Your task to perform on an android device: Clear the cart on bestbuy.com. Search for "razer kraken" on bestbuy.com, select the first entry, and add it to the cart. Image 0: 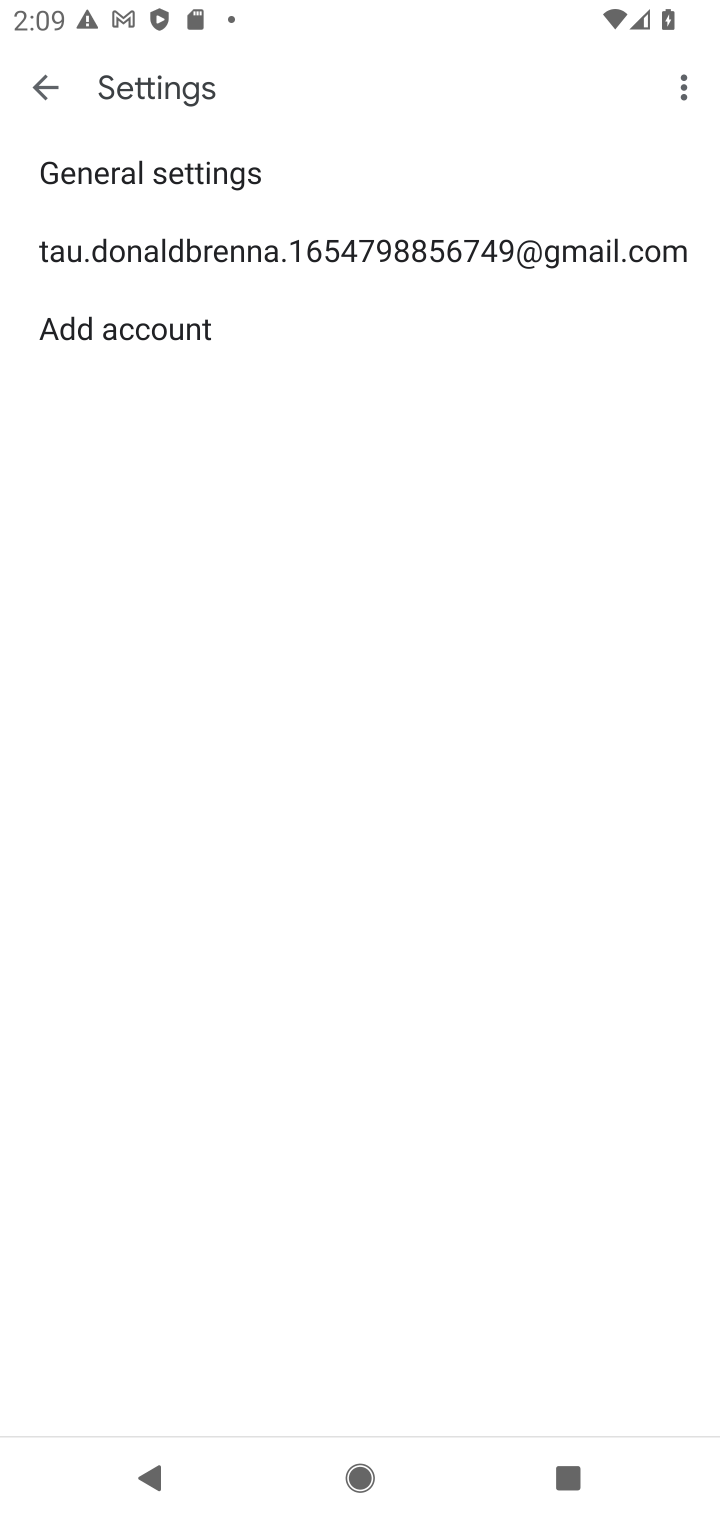
Step 0: press home button
Your task to perform on an android device: Clear the cart on bestbuy.com. Search for "razer kraken" on bestbuy.com, select the first entry, and add it to the cart. Image 1: 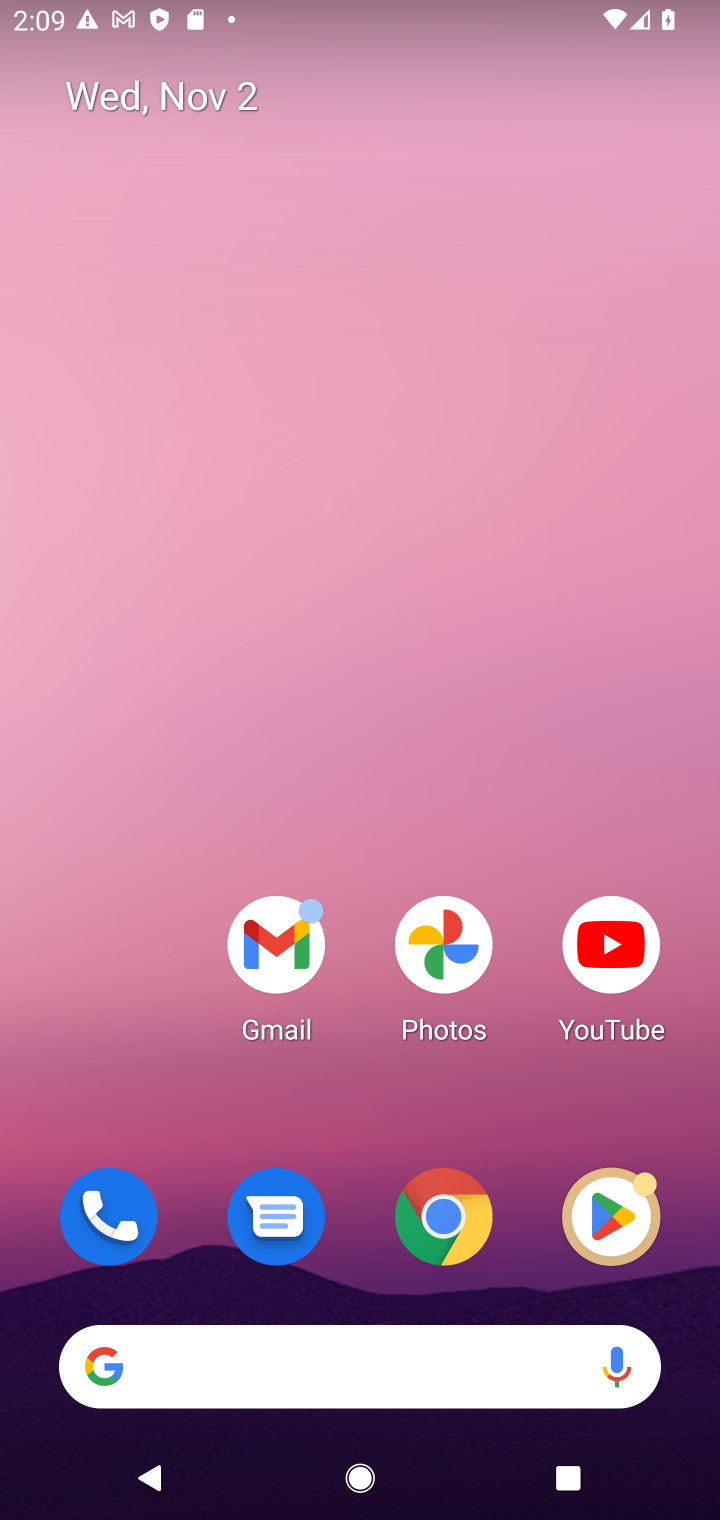
Step 1: click (458, 1229)
Your task to perform on an android device: Clear the cart on bestbuy.com. Search for "razer kraken" on bestbuy.com, select the first entry, and add it to the cart. Image 2: 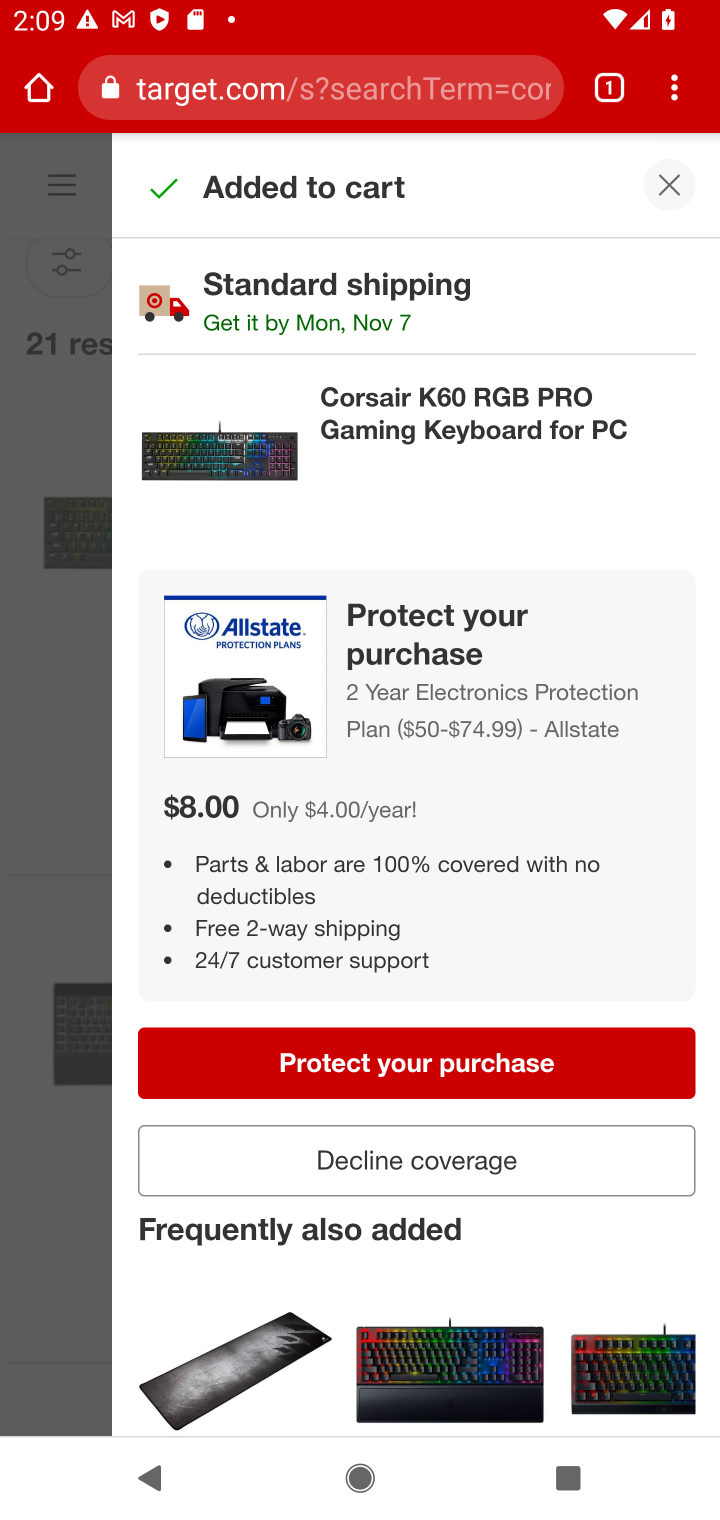
Step 2: click (632, 95)
Your task to perform on an android device: Clear the cart on bestbuy.com. Search for "razer kraken" on bestbuy.com, select the first entry, and add it to the cart. Image 3: 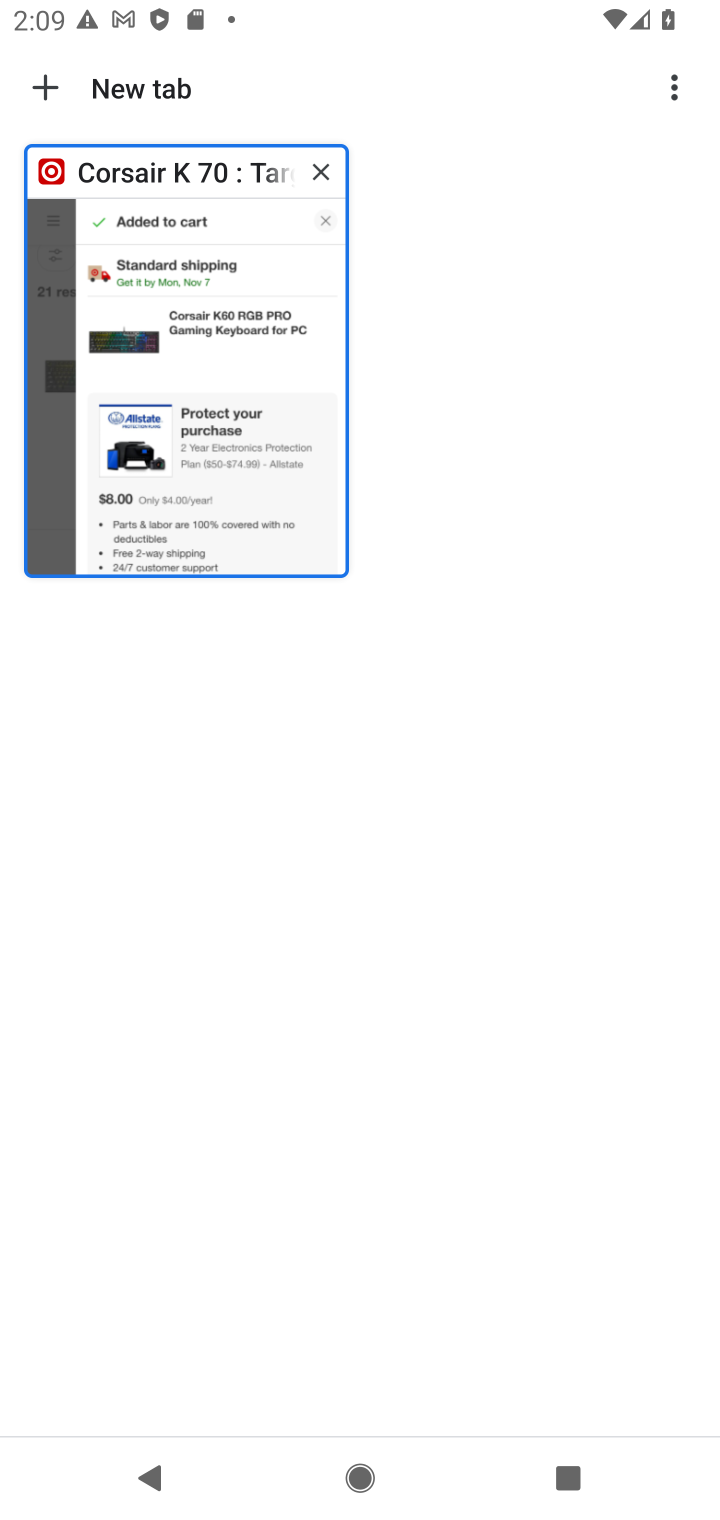
Step 3: click (34, 85)
Your task to perform on an android device: Clear the cart on bestbuy.com. Search for "razer kraken" on bestbuy.com, select the first entry, and add it to the cart. Image 4: 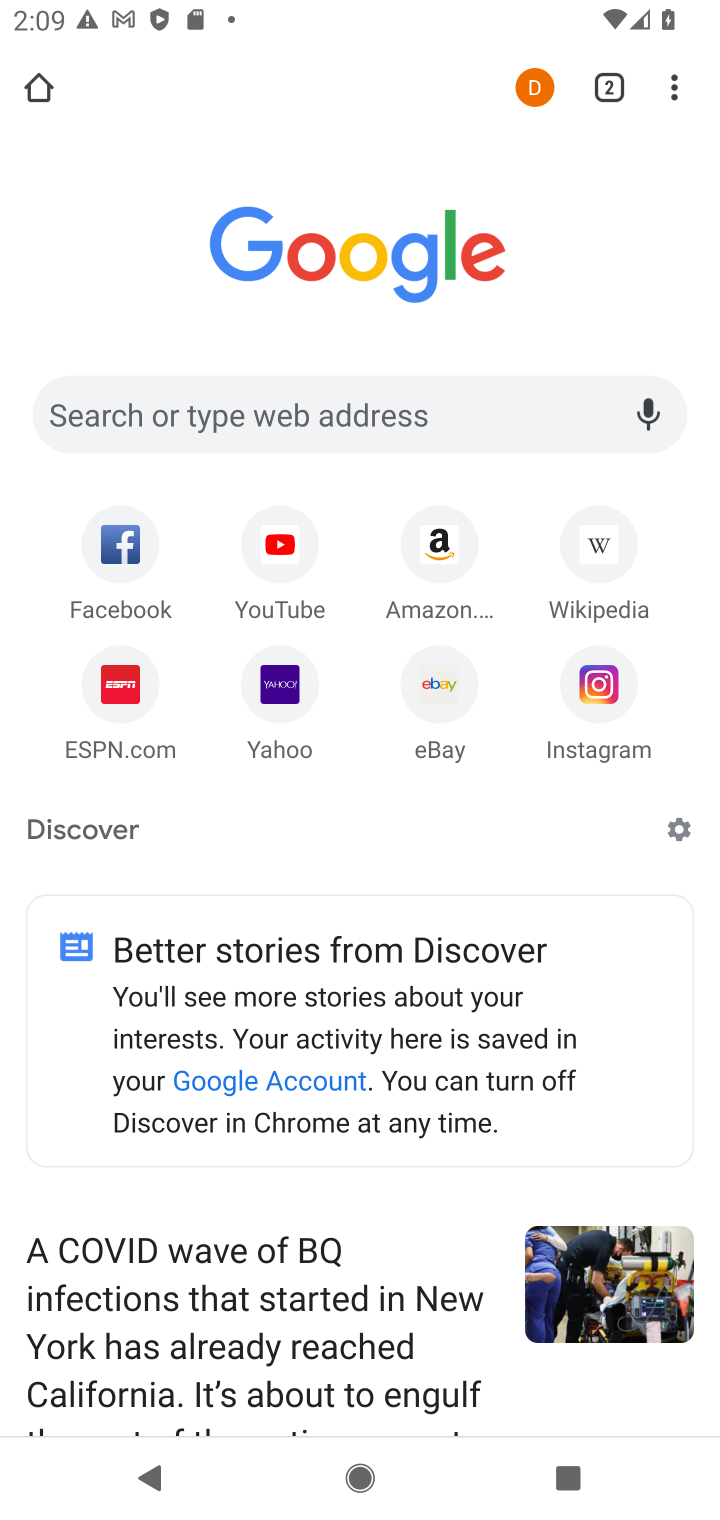
Step 4: click (297, 406)
Your task to perform on an android device: Clear the cart on bestbuy.com. Search for "razer kraken" on bestbuy.com, select the first entry, and add it to the cart. Image 5: 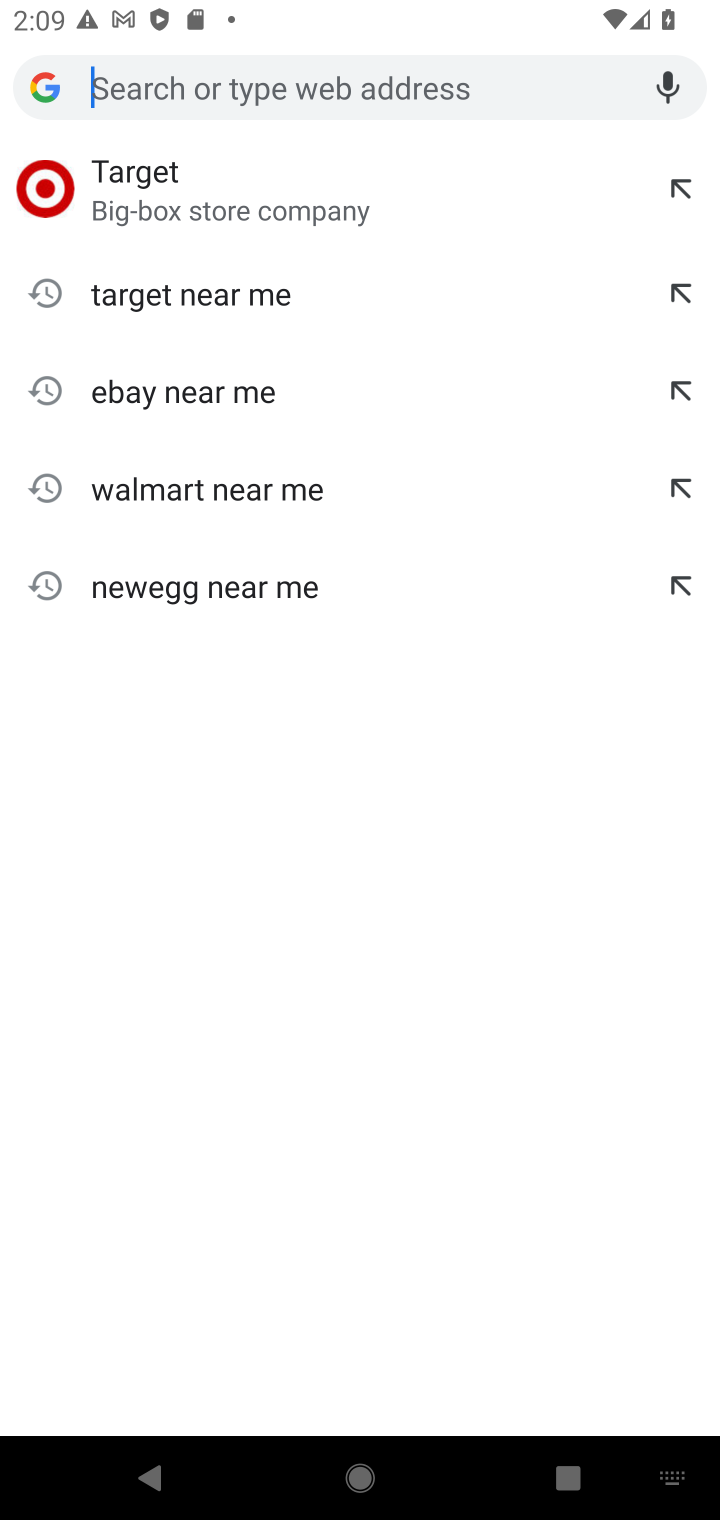
Step 5: type "bestbuy"
Your task to perform on an android device: Clear the cart on bestbuy.com. Search for "razer kraken" on bestbuy.com, select the first entry, and add it to the cart. Image 6: 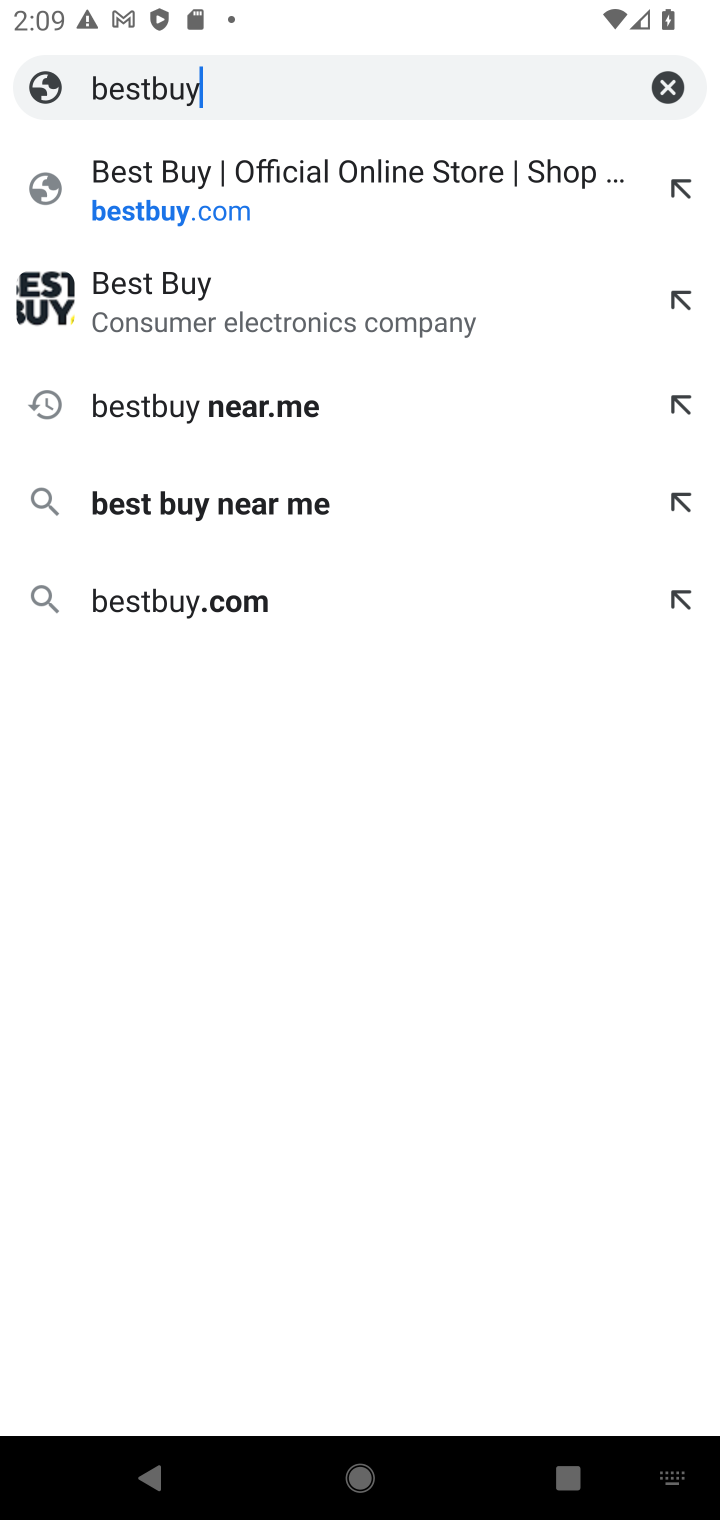
Step 6: click (318, 169)
Your task to perform on an android device: Clear the cart on bestbuy.com. Search for "razer kraken" on bestbuy.com, select the first entry, and add it to the cart. Image 7: 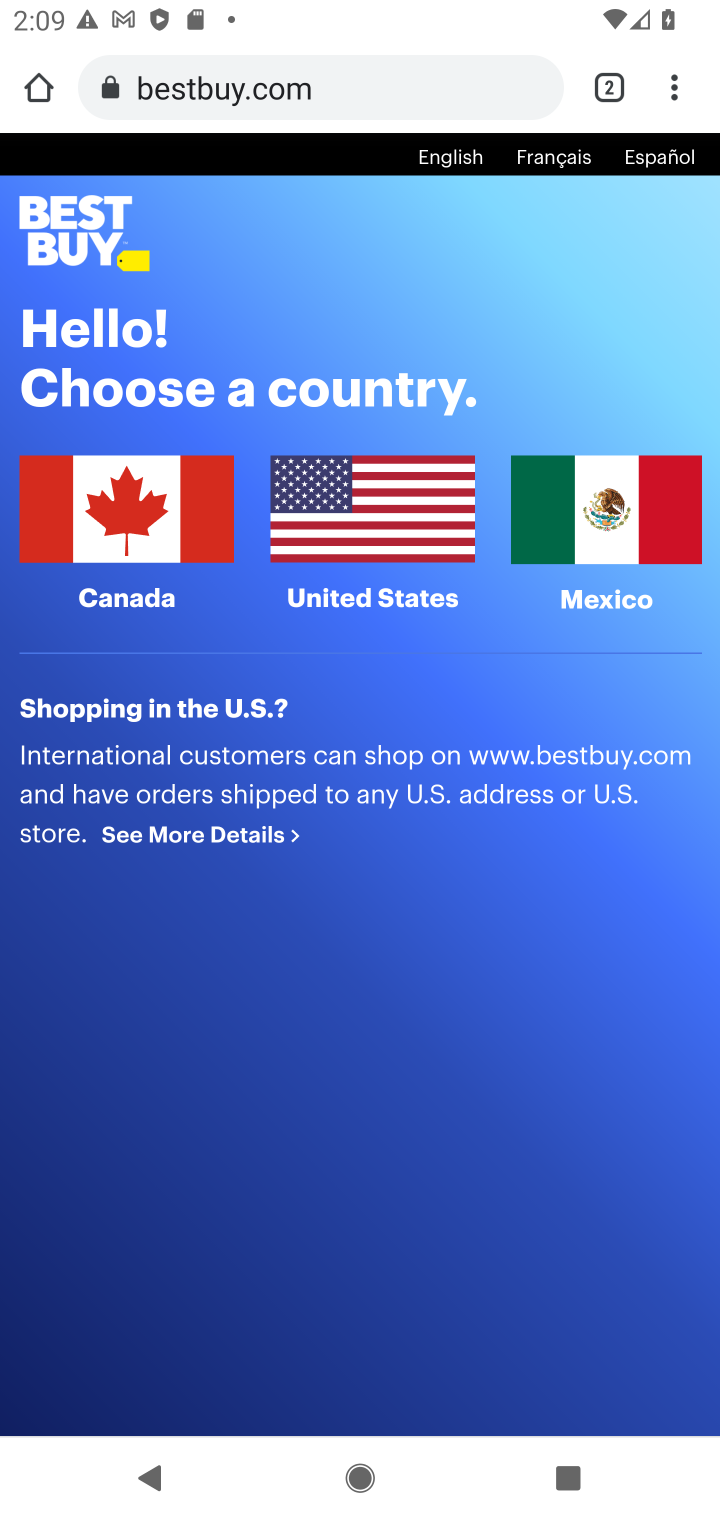
Step 7: click (313, 503)
Your task to perform on an android device: Clear the cart on bestbuy.com. Search for "razer kraken" on bestbuy.com, select the first entry, and add it to the cart. Image 8: 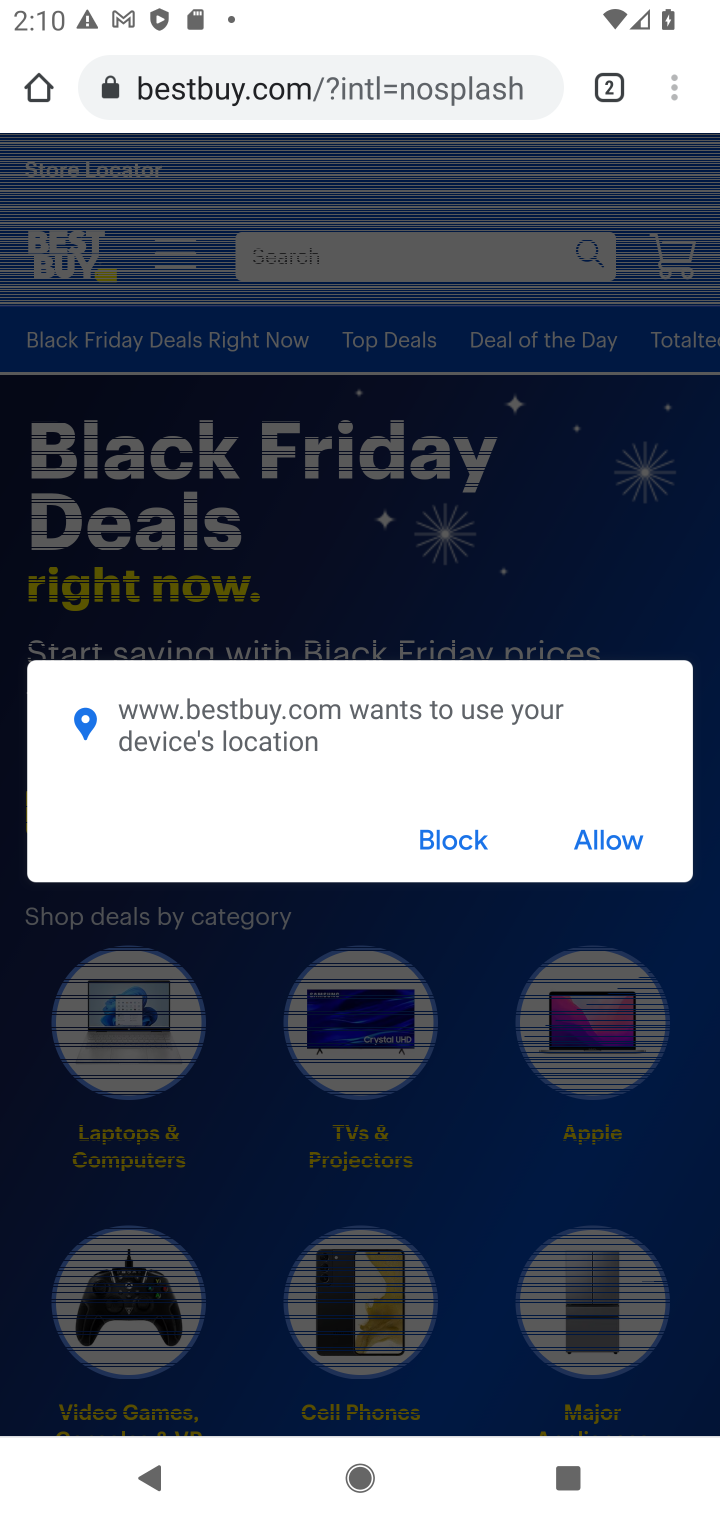
Step 8: click (602, 846)
Your task to perform on an android device: Clear the cart on bestbuy.com. Search for "razer kraken" on bestbuy.com, select the first entry, and add it to the cart. Image 9: 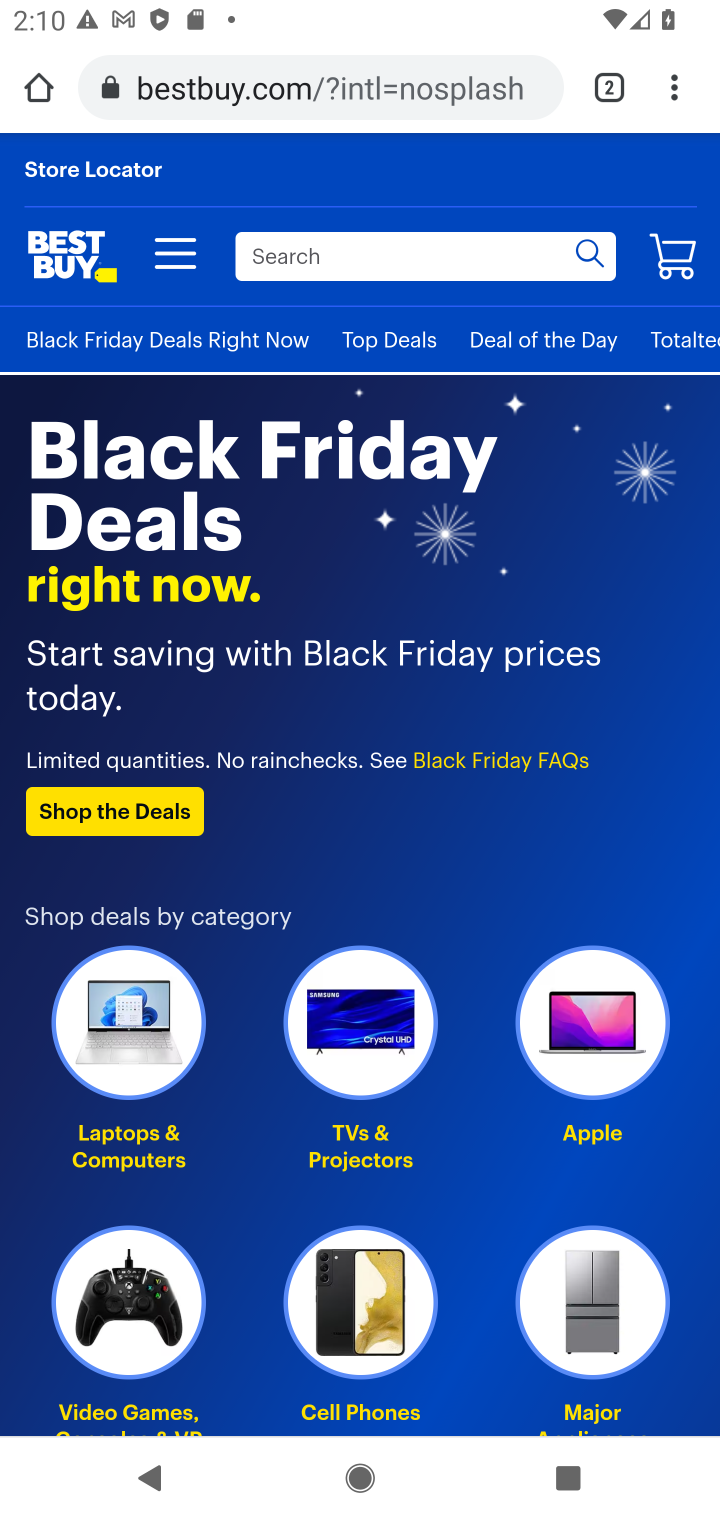
Step 9: click (321, 253)
Your task to perform on an android device: Clear the cart on bestbuy.com. Search for "razer kraken" on bestbuy.com, select the first entry, and add it to the cart. Image 10: 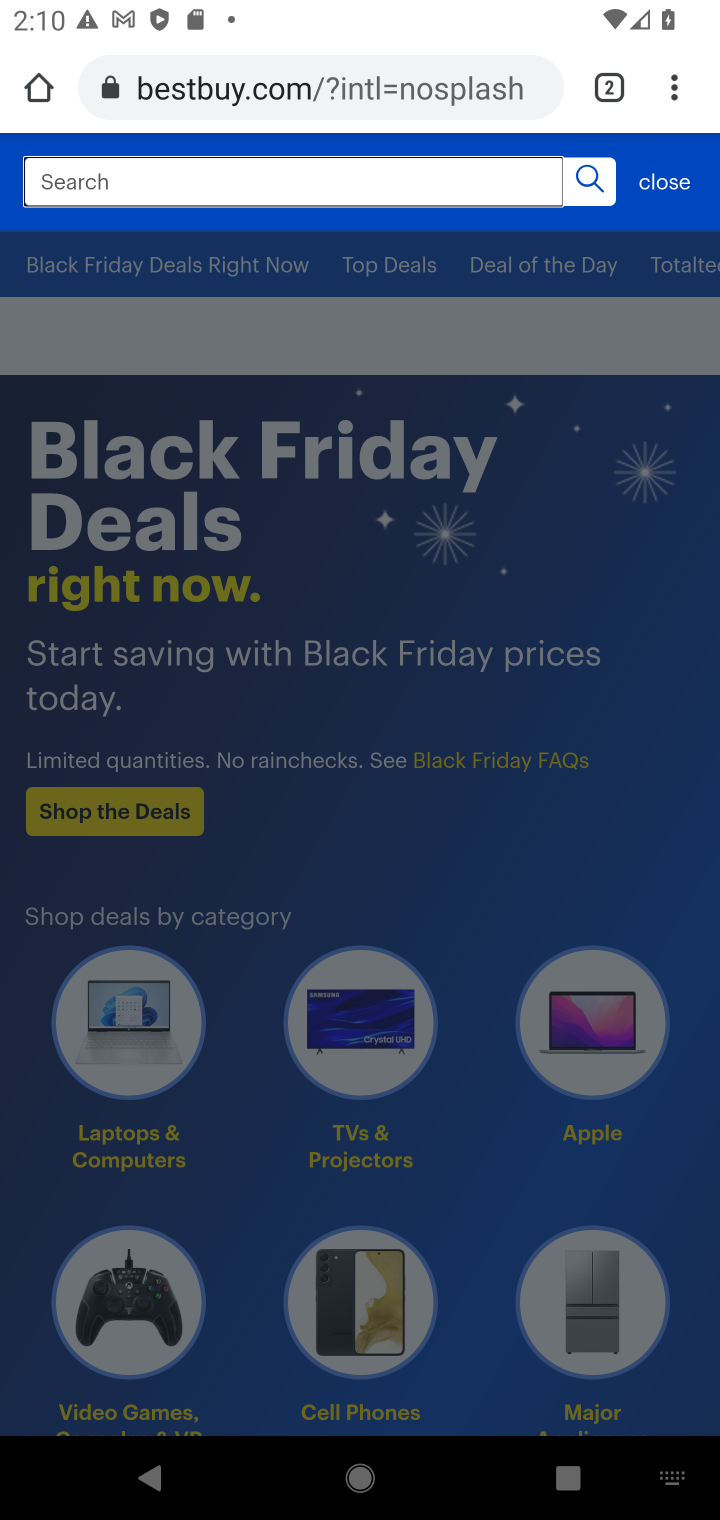
Step 10: type "razer kraken"
Your task to perform on an android device: Clear the cart on bestbuy.com. Search for "razer kraken" on bestbuy.com, select the first entry, and add it to the cart. Image 11: 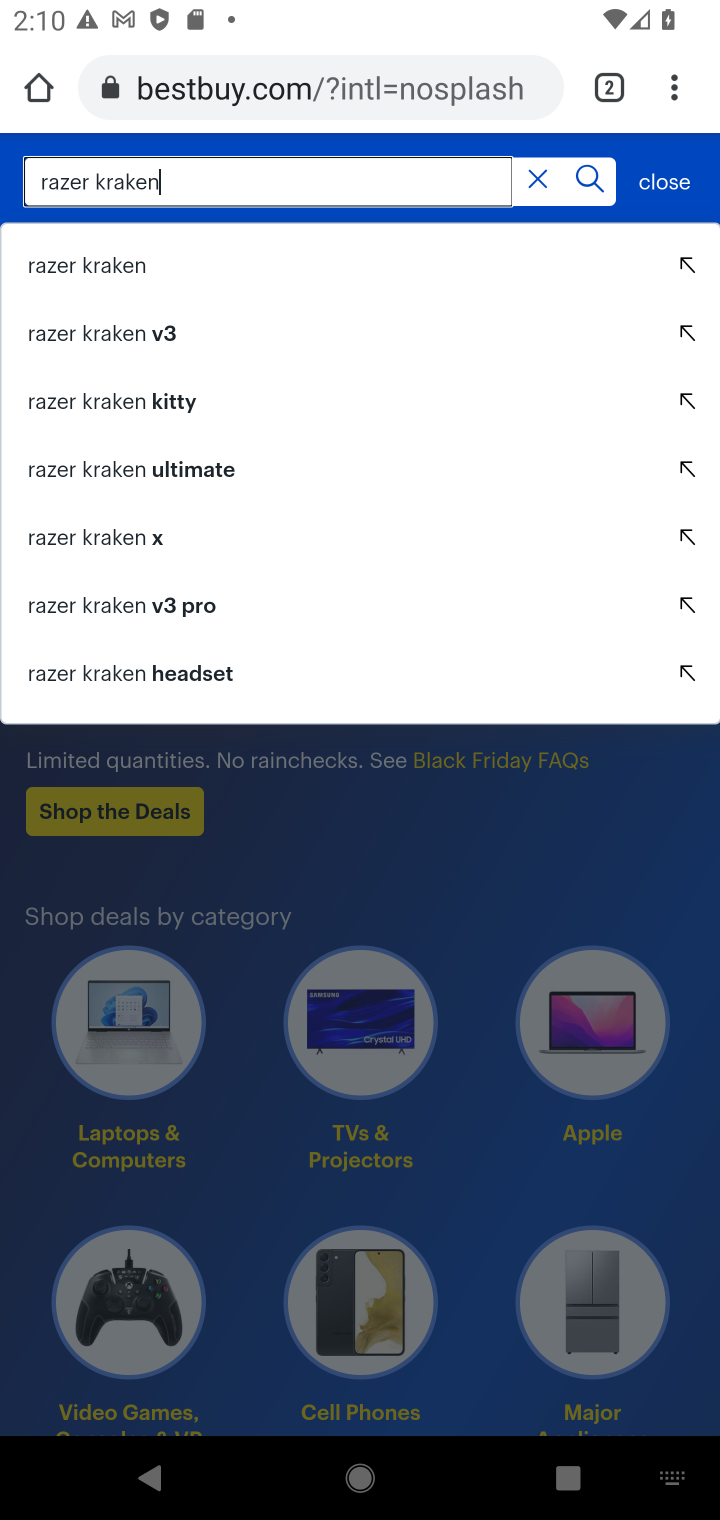
Step 11: click (56, 265)
Your task to perform on an android device: Clear the cart on bestbuy.com. Search for "razer kraken" on bestbuy.com, select the first entry, and add it to the cart. Image 12: 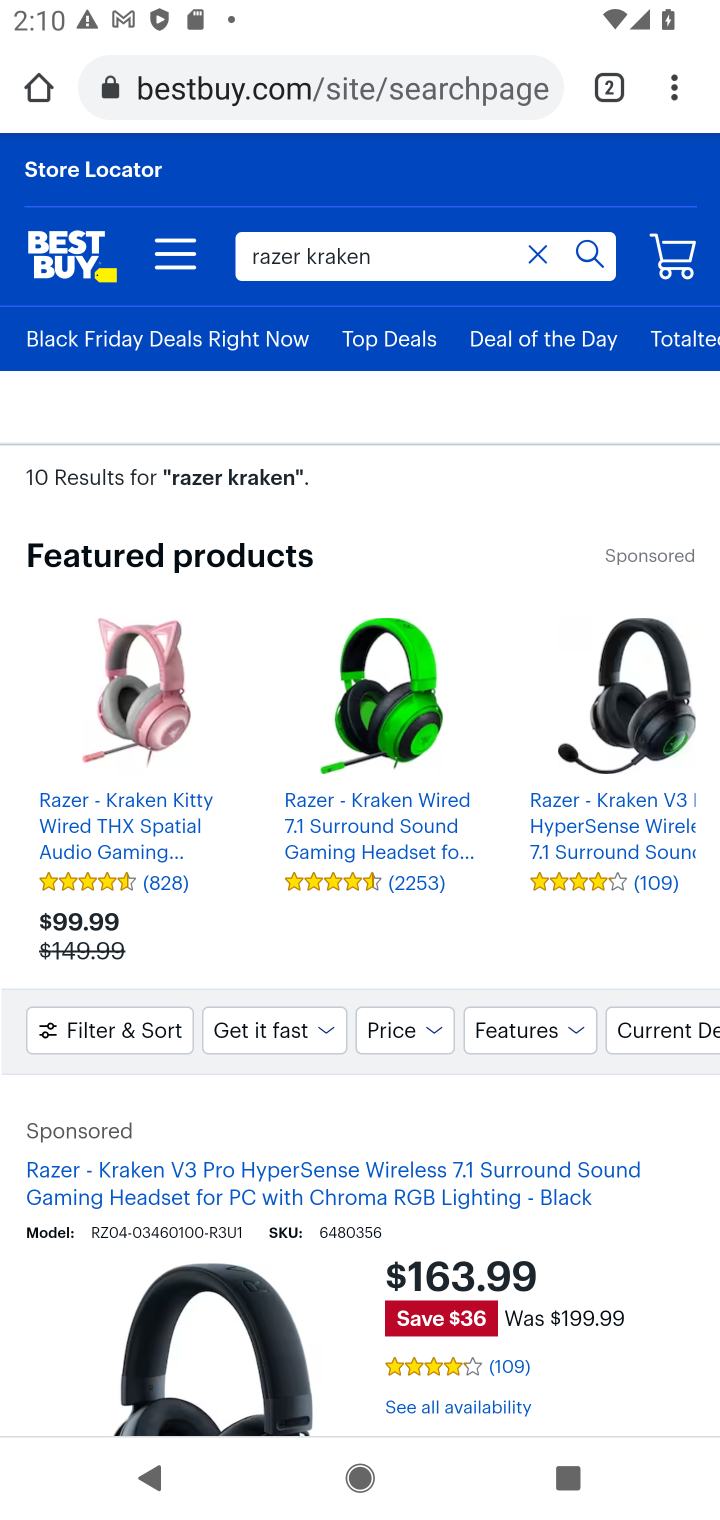
Step 12: click (591, 1415)
Your task to perform on an android device: Clear the cart on bestbuy.com. Search for "razer kraken" on bestbuy.com, select the first entry, and add it to the cart. Image 13: 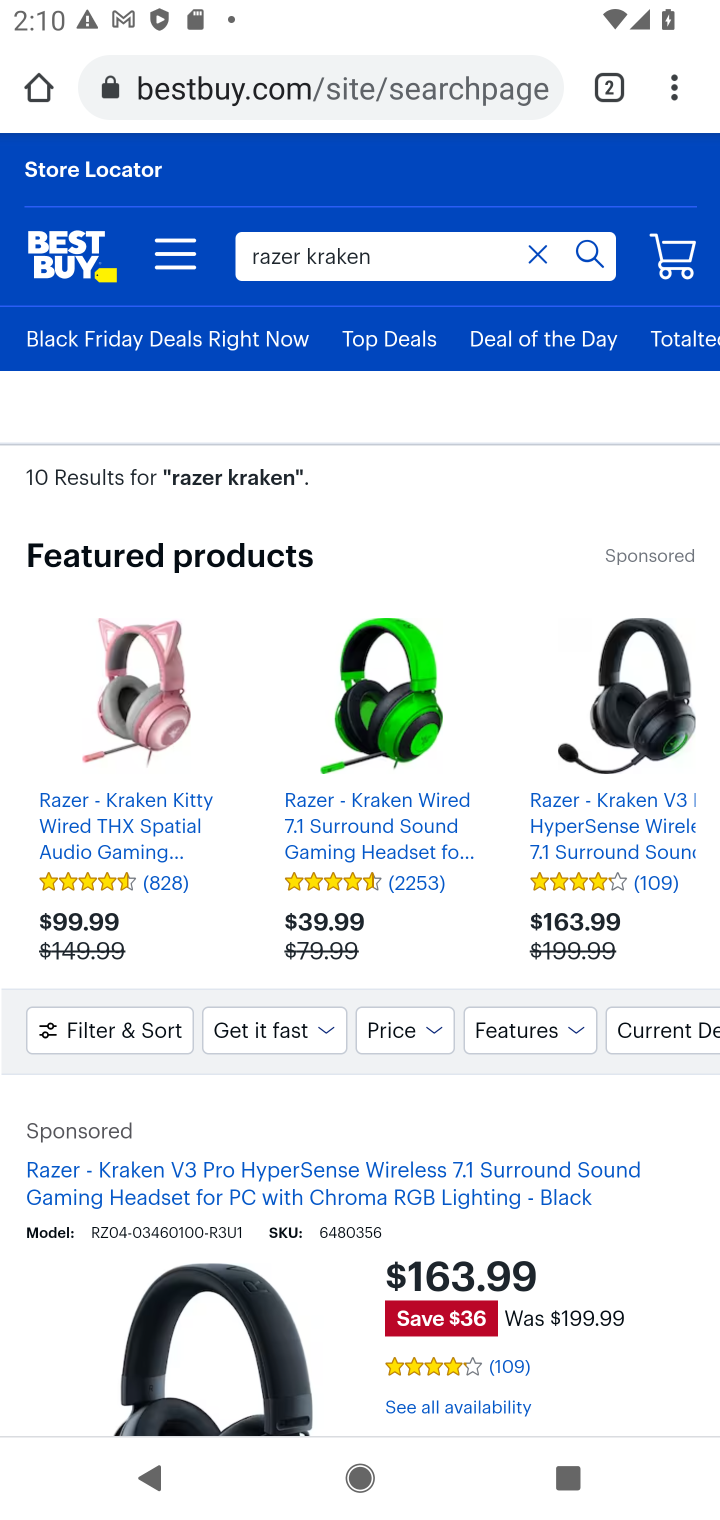
Step 13: task complete